Your task to perform on an android device: find snoozed emails in the gmail app Image 0: 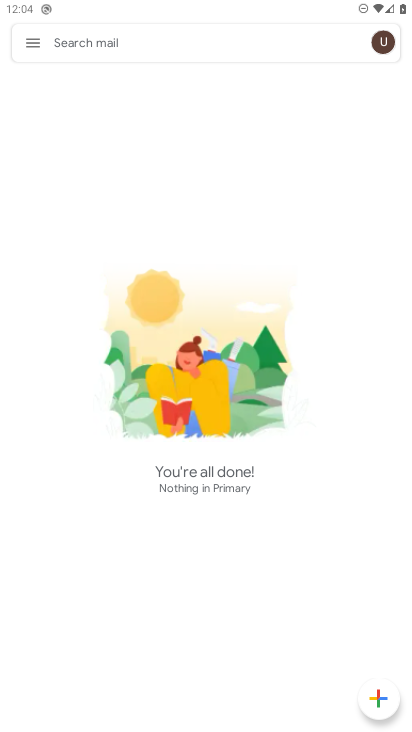
Step 0: press home button
Your task to perform on an android device: find snoozed emails in the gmail app Image 1: 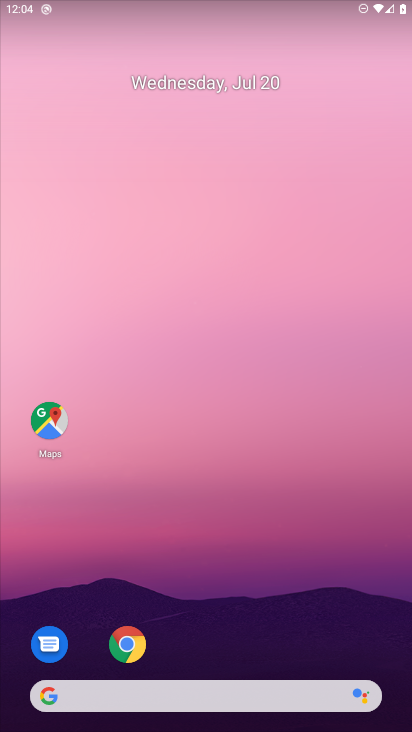
Step 1: drag from (48, 661) to (237, 175)
Your task to perform on an android device: find snoozed emails in the gmail app Image 2: 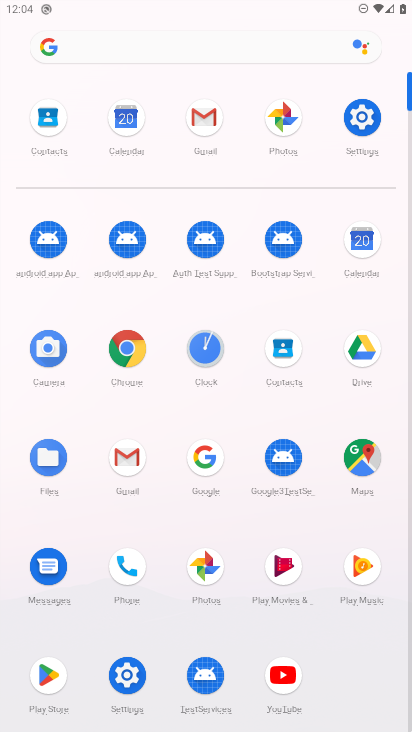
Step 2: click (203, 141)
Your task to perform on an android device: find snoozed emails in the gmail app Image 3: 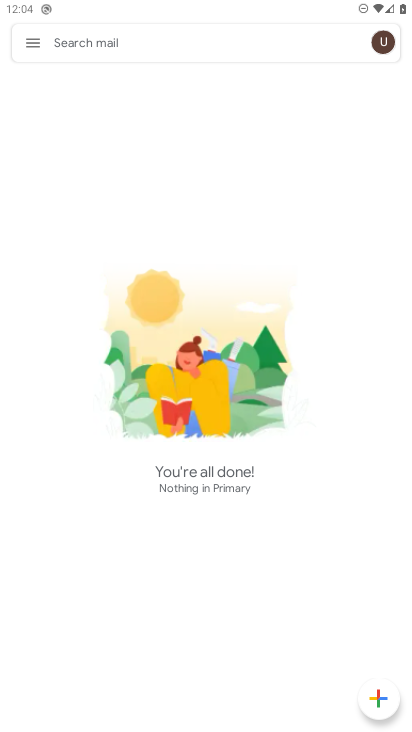
Step 3: click (29, 47)
Your task to perform on an android device: find snoozed emails in the gmail app Image 4: 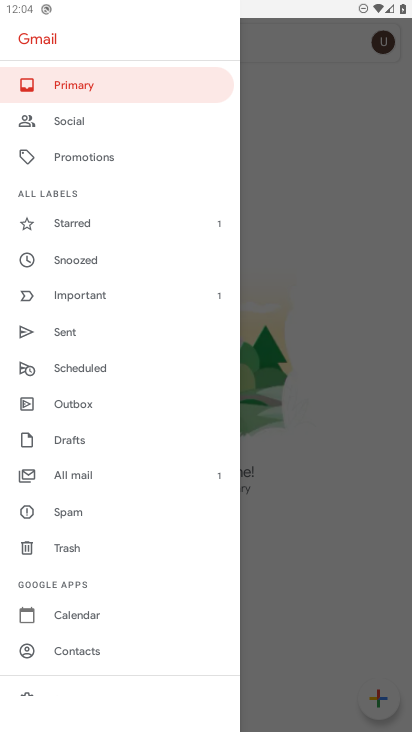
Step 4: click (66, 257)
Your task to perform on an android device: find snoozed emails in the gmail app Image 5: 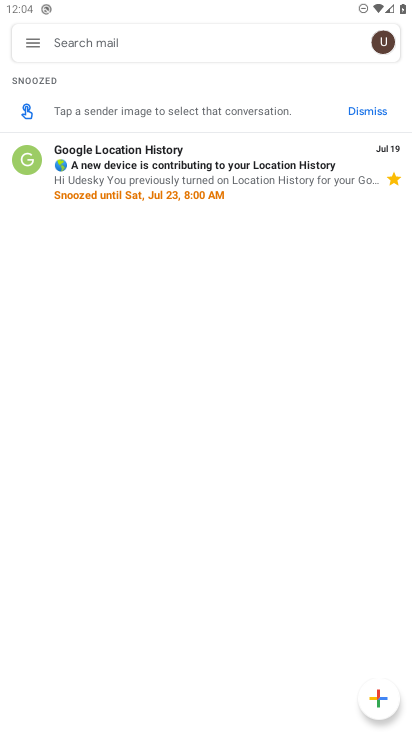
Step 5: task complete